Your task to perform on an android device: toggle notifications settings in the gmail app Image 0: 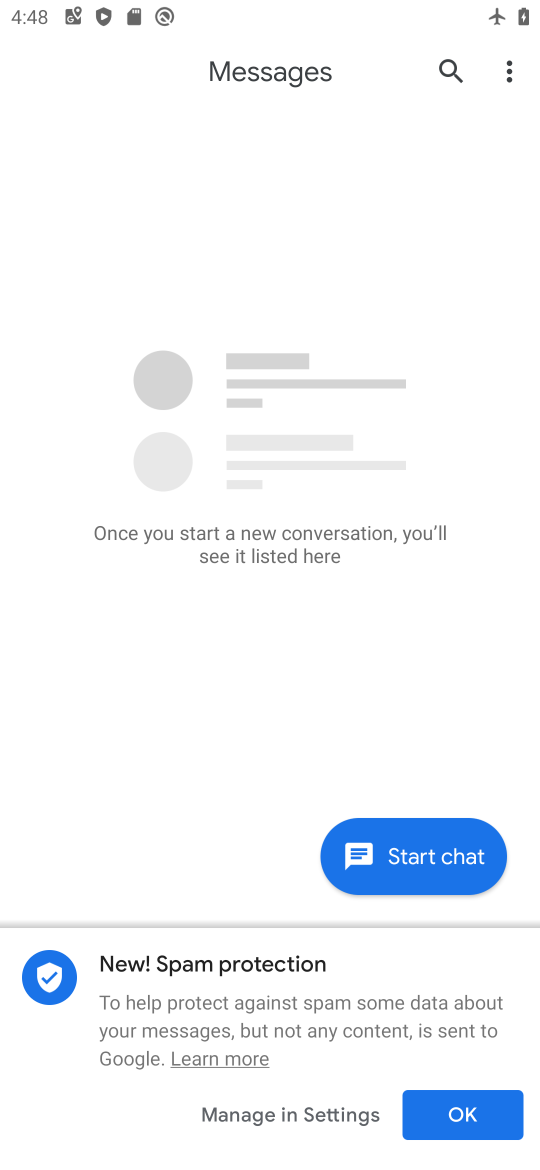
Step 0: press home button
Your task to perform on an android device: toggle notifications settings in the gmail app Image 1: 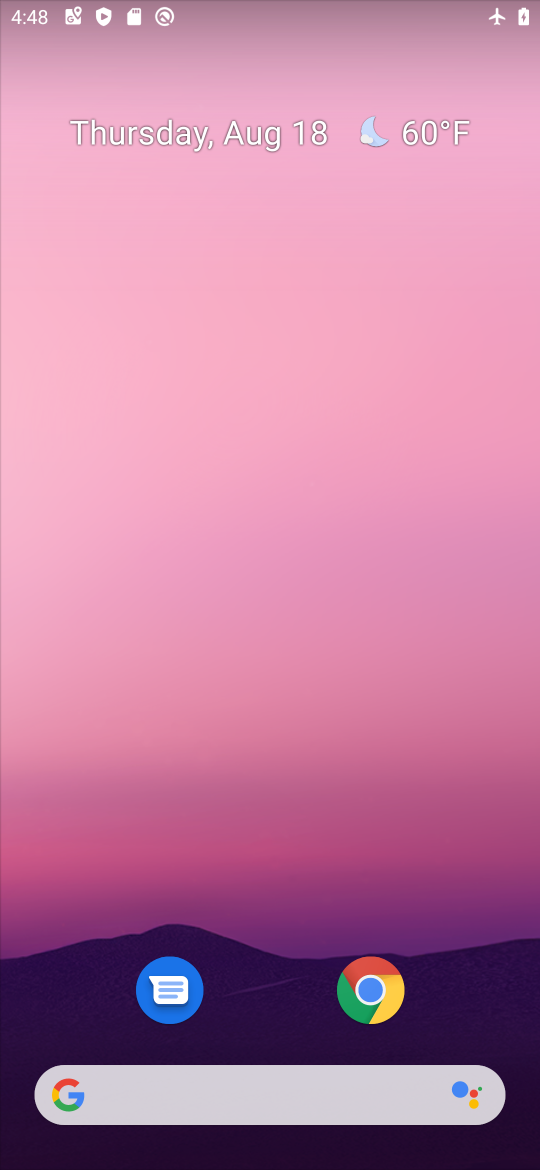
Step 1: drag from (240, 973) to (424, 306)
Your task to perform on an android device: toggle notifications settings in the gmail app Image 2: 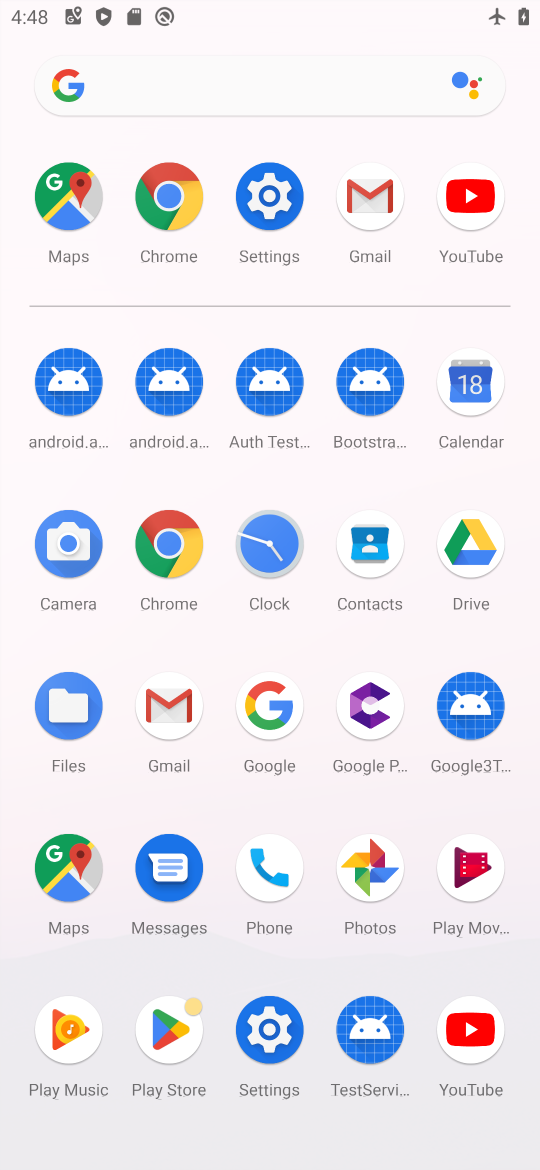
Step 2: click (143, 694)
Your task to perform on an android device: toggle notifications settings in the gmail app Image 3: 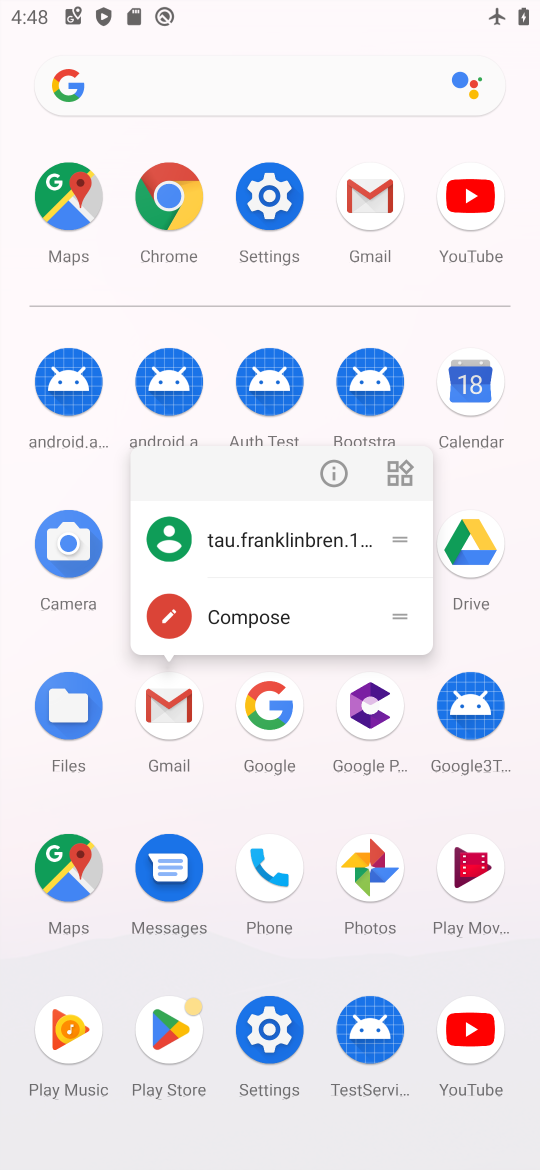
Step 3: click (151, 702)
Your task to perform on an android device: toggle notifications settings in the gmail app Image 4: 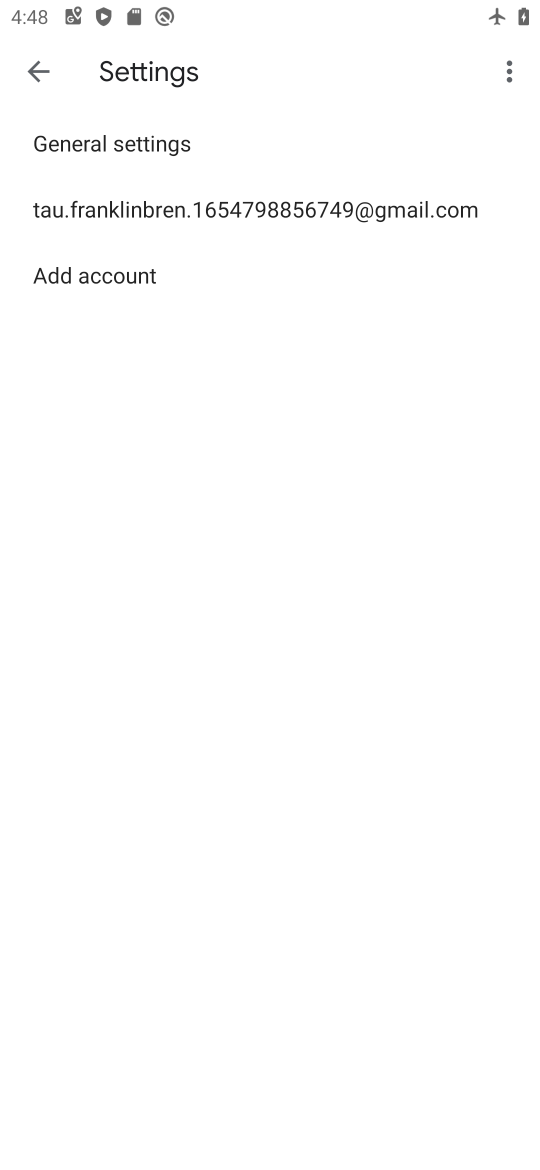
Step 4: click (354, 210)
Your task to perform on an android device: toggle notifications settings in the gmail app Image 5: 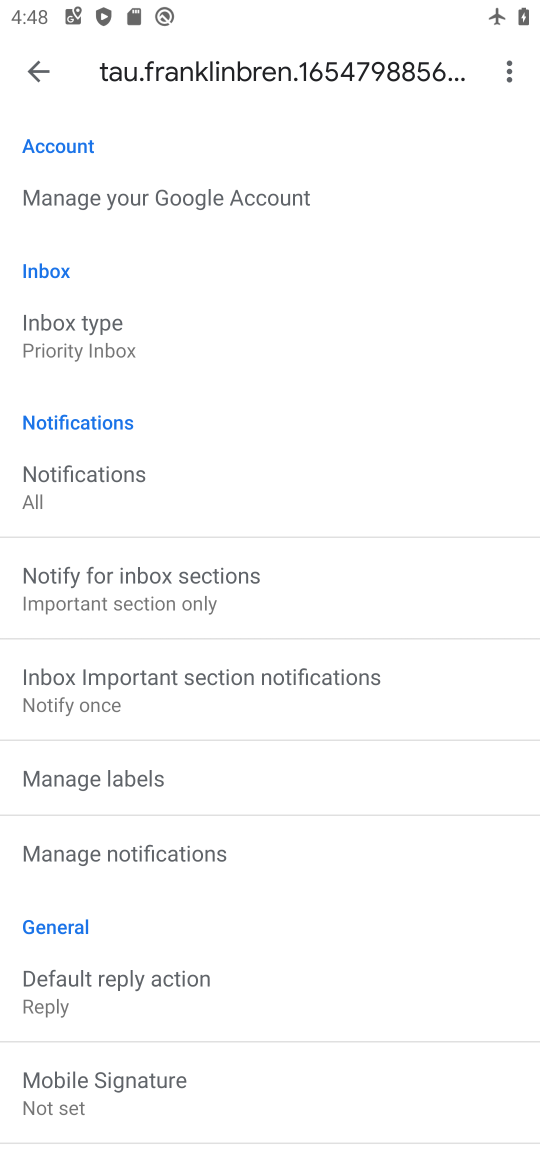
Step 5: drag from (224, 278) to (206, 752)
Your task to perform on an android device: toggle notifications settings in the gmail app Image 6: 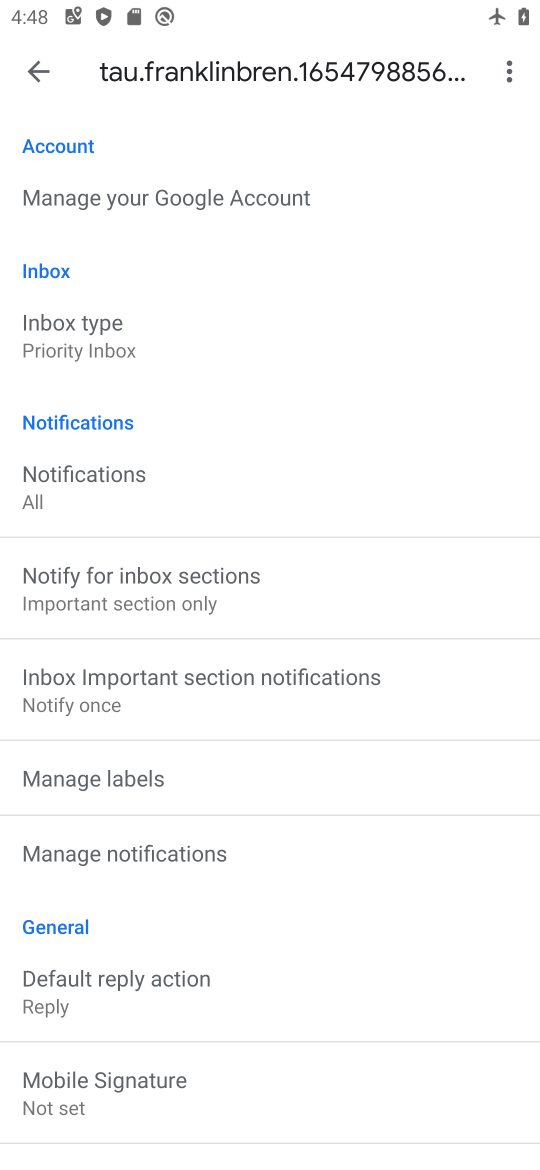
Step 6: click (117, 838)
Your task to perform on an android device: toggle notifications settings in the gmail app Image 7: 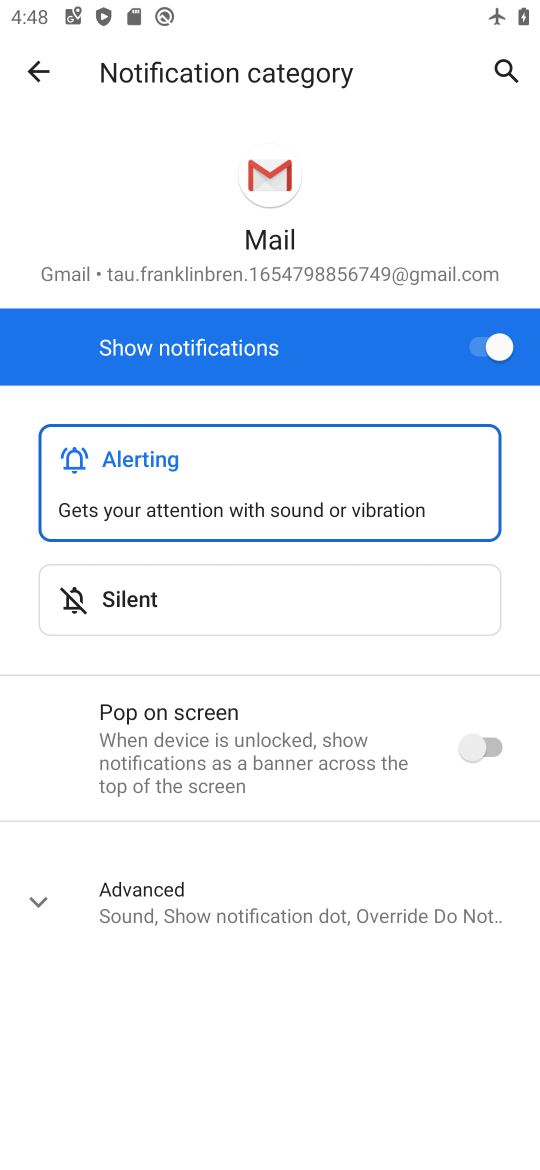
Step 7: click (444, 342)
Your task to perform on an android device: toggle notifications settings in the gmail app Image 8: 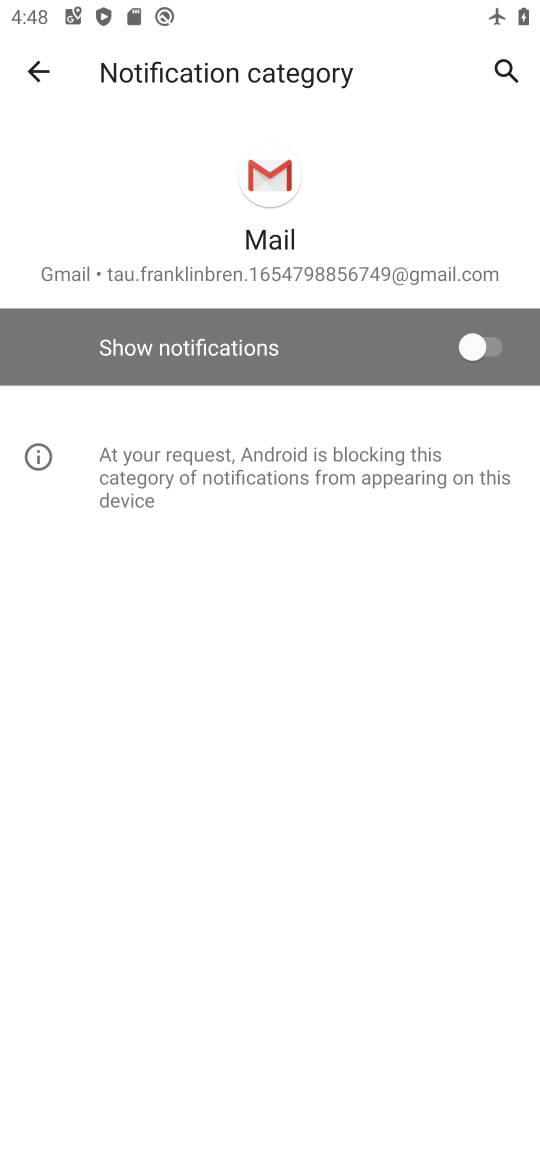
Step 8: task complete